Your task to perform on an android device: turn on notifications settings in the gmail app Image 0: 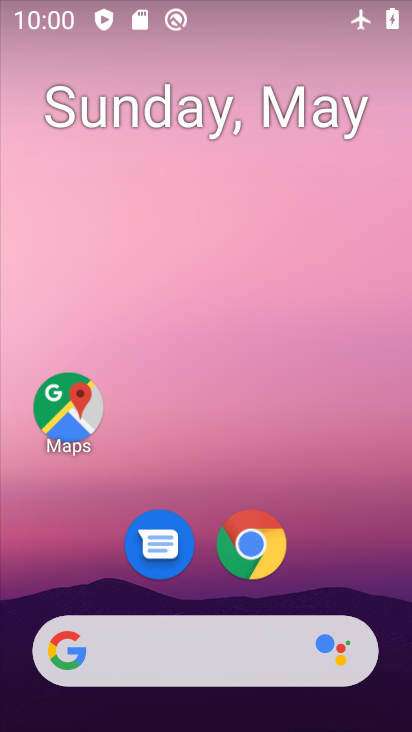
Step 0: drag from (337, 531) to (329, 232)
Your task to perform on an android device: turn on notifications settings in the gmail app Image 1: 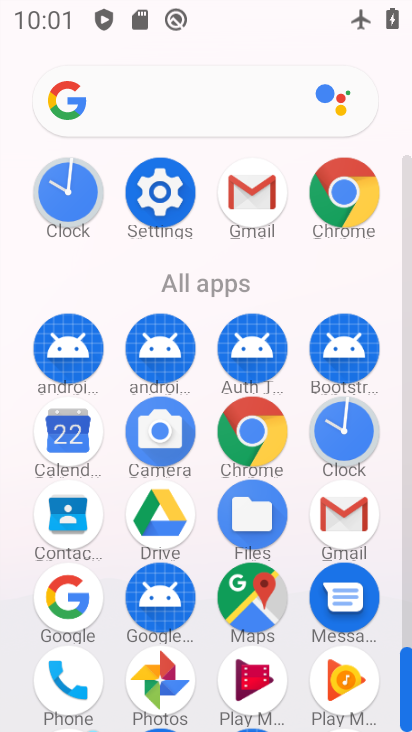
Step 1: click (249, 188)
Your task to perform on an android device: turn on notifications settings in the gmail app Image 2: 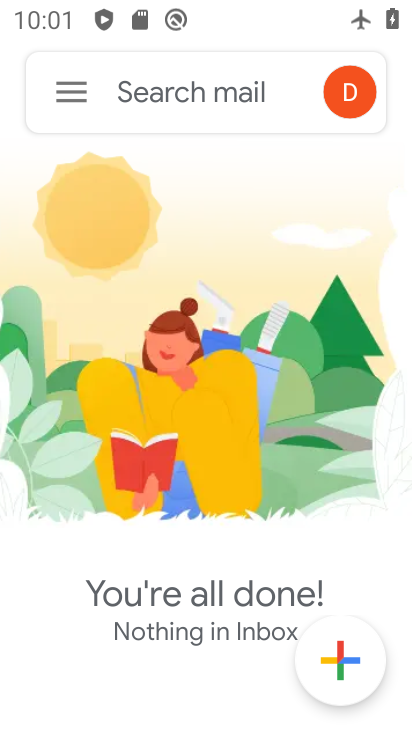
Step 2: click (62, 85)
Your task to perform on an android device: turn on notifications settings in the gmail app Image 3: 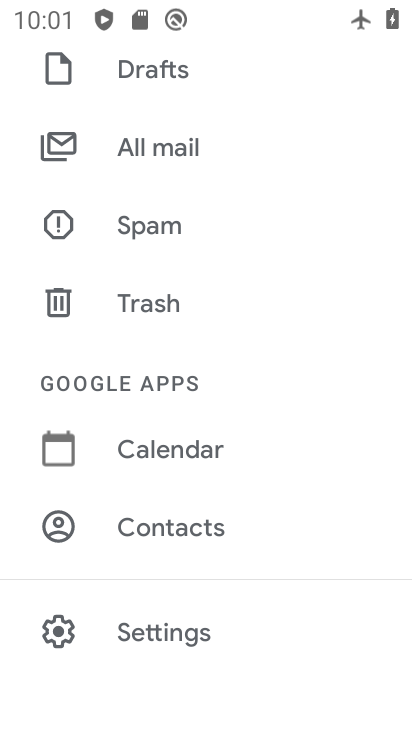
Step 3: click (207, 632)
Your task to perform on an android device: turn on notifications settings in the gmail app Image 4: 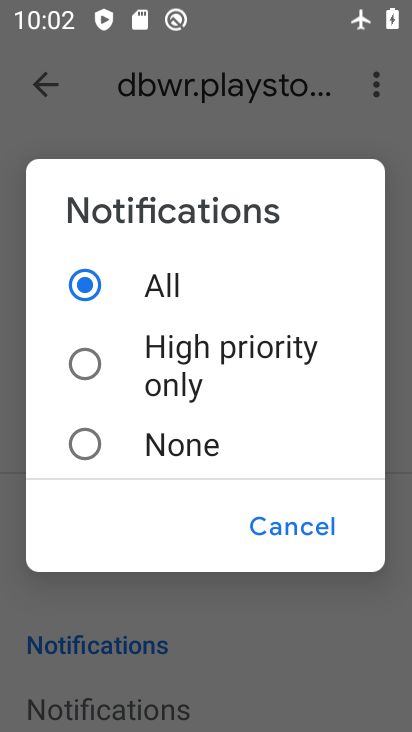
Step 4: task complete